Your task to perform on an android device: open device folders in google photos Image 0: 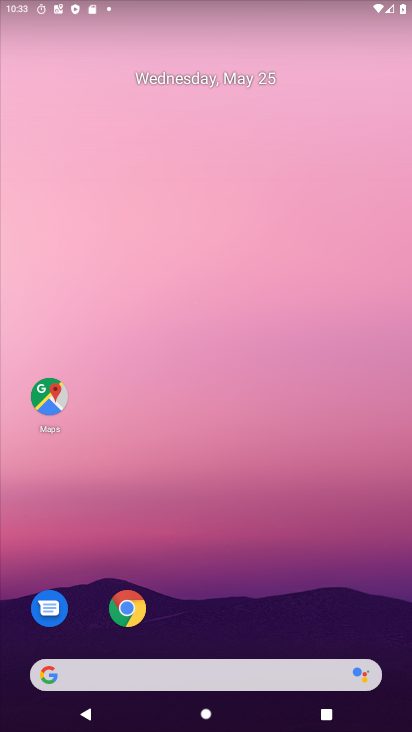
Step 0: drag from (224, 643) to (259, 185)
Your task to perform on an android device: open device folders in google photos Image 1: 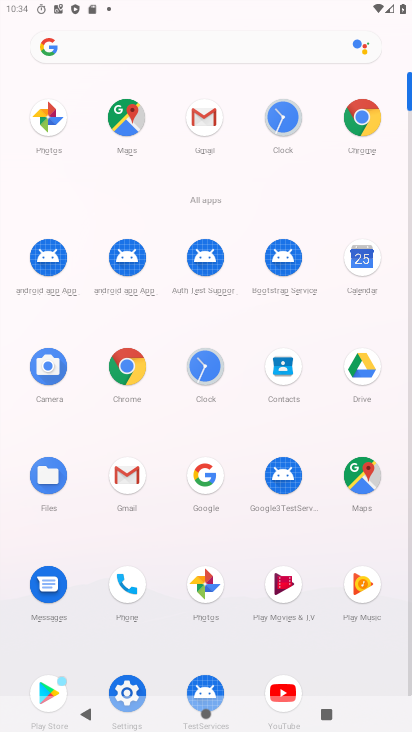
Step 1: click (38, 124)
Your task to perform on an android device: open device folders in google photos Image 2: 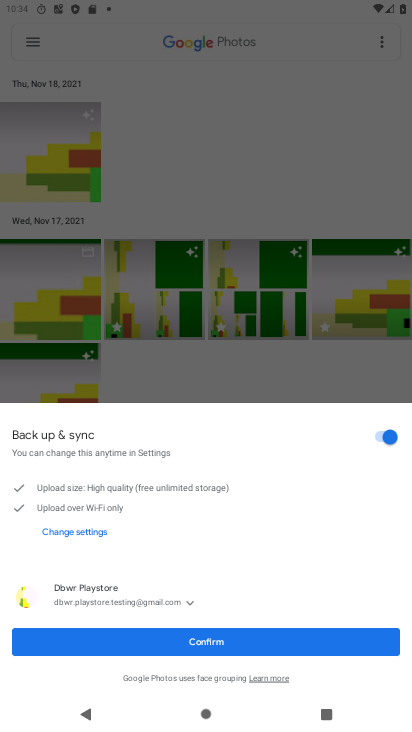
Step 2: click (203, 631)
Your task to perform on an android device: open device folders in google photos Image 3: 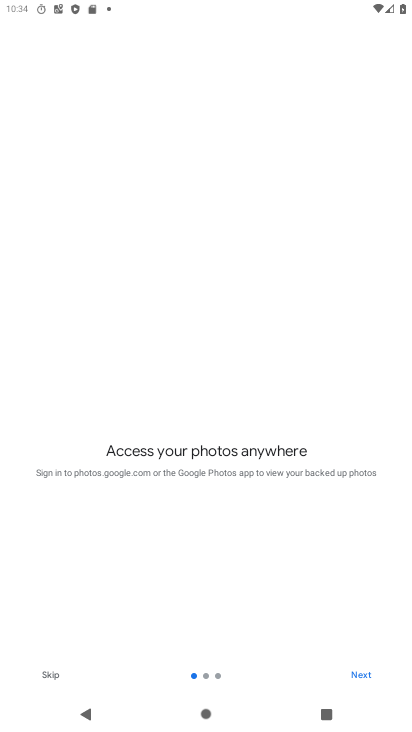
Step 3: click (45, 673)
Your task to perform on an android device: open device folders in google photos Image 4: 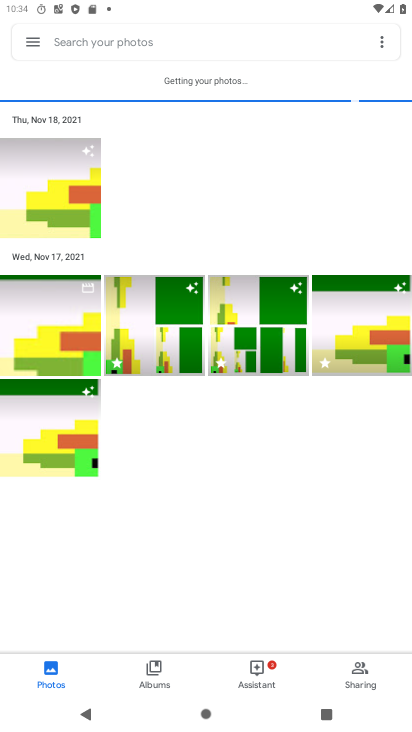
Step 4: click (34, 36)
Your task to perform on an android device: open device folders in google photos Image 5: 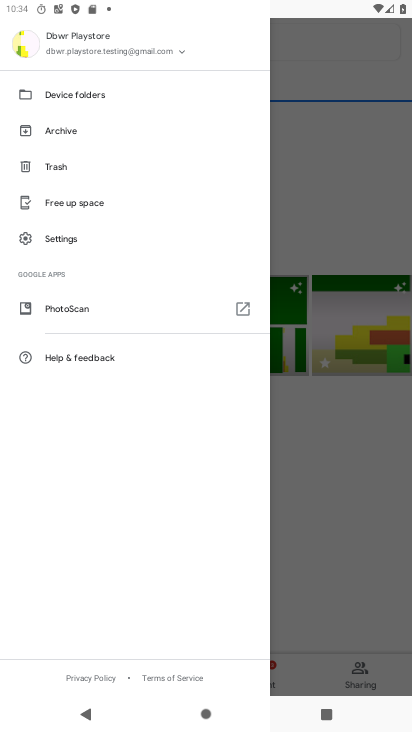
Step 5: click (80, 87)
Your task to perform on an android device: open device folders in google photos Image 6: 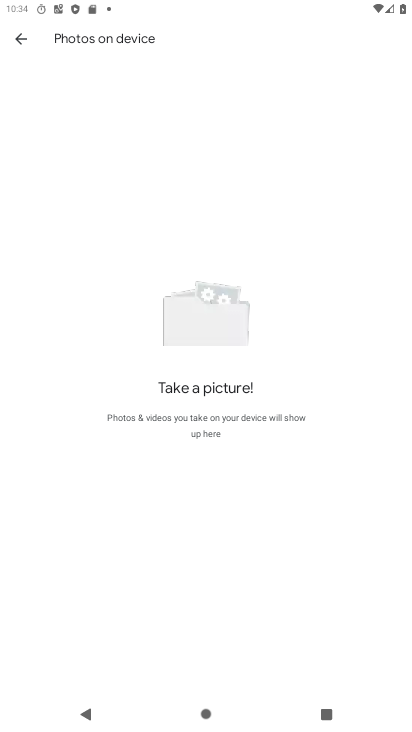
Step 6: task complete